Your task to perform on an android device: Open the calendar and show me this week's events Image 0: 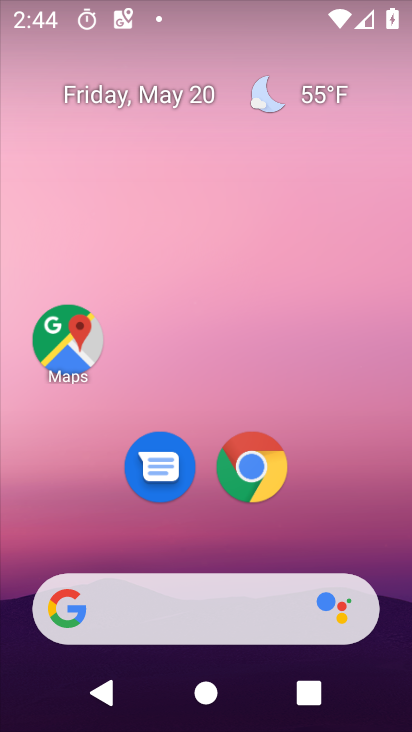
Step 0: drag from (218, 551) to (250, 43)
Your task to perform on an android device: Open the calendar and show me this week's events Image 1: 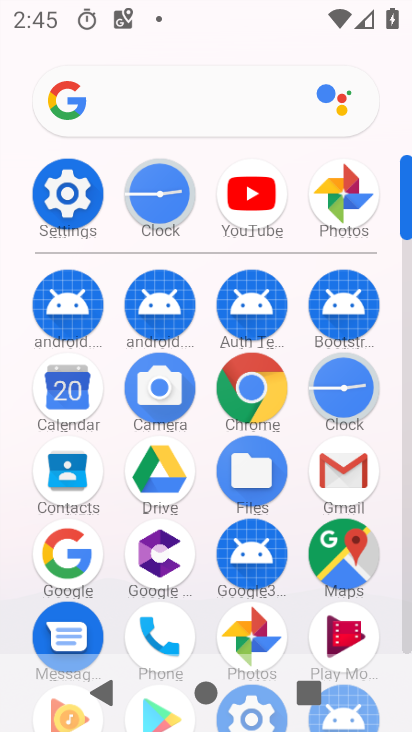
Step 1: click (66, 403)
Your task to perform on an android device: Open the calendar and show me this week's events Image 2: 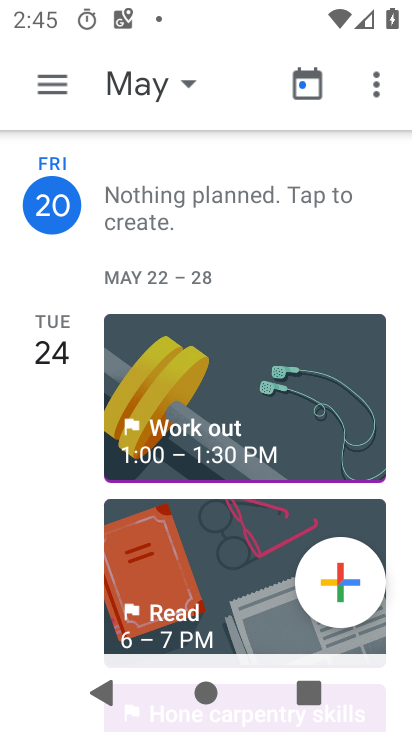
Step 2: click (154, 87)
Your task to perform on an android device: Open the calendar and show me this week's events Image 3: 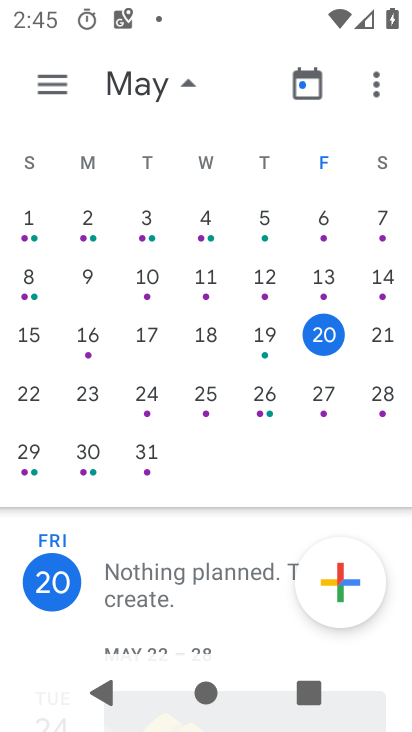
Step 3: click (320, 332)
Your task to perform on an android device: Open the calendar and show me this week's events Image 4: 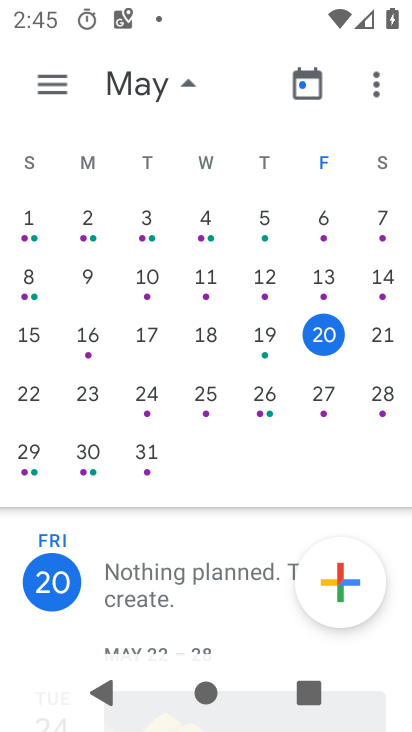
Step 4: click (377, 341)
Your task to perform on an android device: Open the calendar and show me this week's events Image 5: 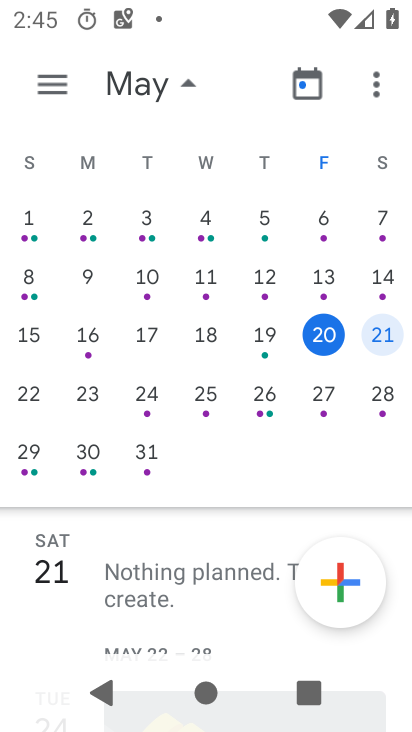
Step 5: task complete